Your task to perform on an android device: make emails show in primary in the gmail app Image 0: 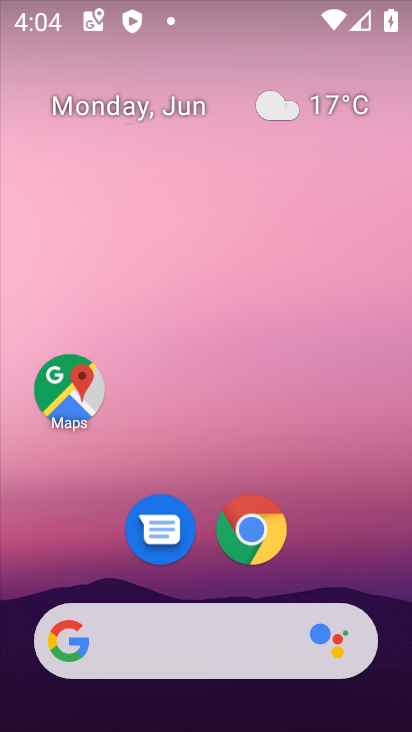
Step 0: drag from (351, 549) to (287, 17)
Your task to perform on an android device: make emails show in primary in the gmail app Image 1: 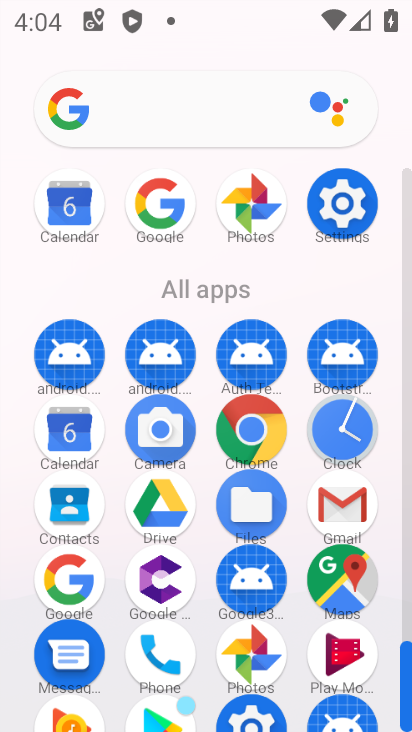
Step 1: click (339, 502)
Your task to perform on an android device: make emails show in primary in the gmail app Image 2: 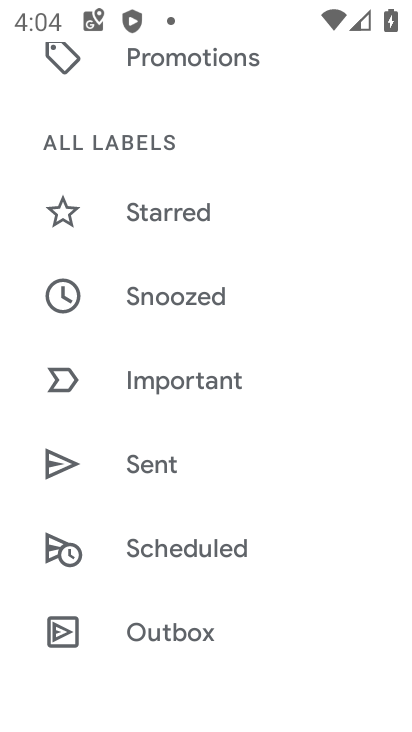
Step 2: drag from (199, 192) to (98, 605)
Your task to perform on an android device: make emails show in primary in the gmail app Image 3: 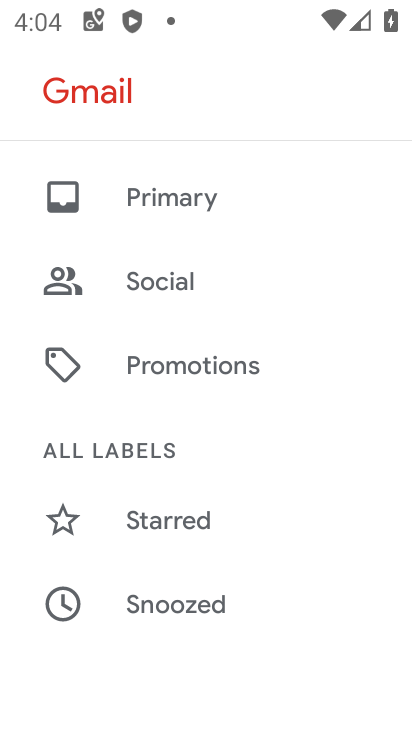
Step 3: click (156, 200)
Your task to perform on an android device: make emails show in primary in the gmail app Image 4: 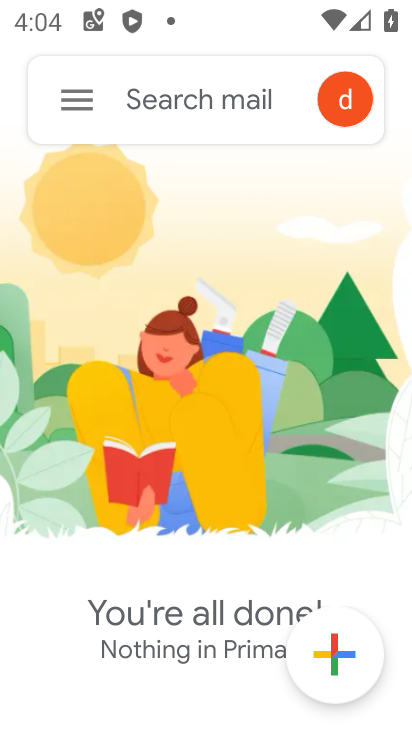
Step 4: task complete